Your task to perform on an android device: toggle location history Image 0: 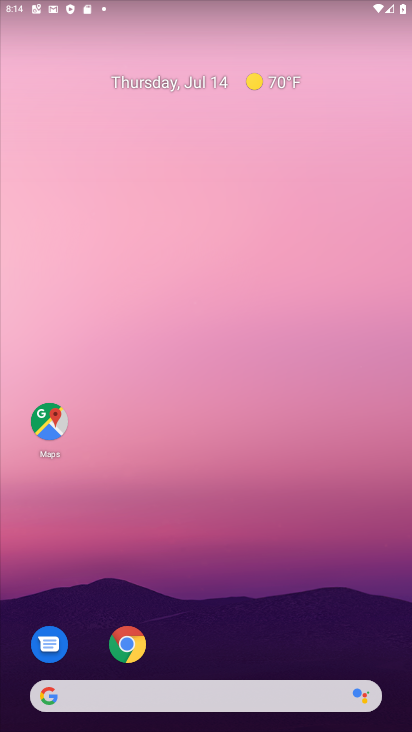
Step 0: drag from (200, 587) to (233, 158)
Your task to perform on an android device: toggle location history Image 1: 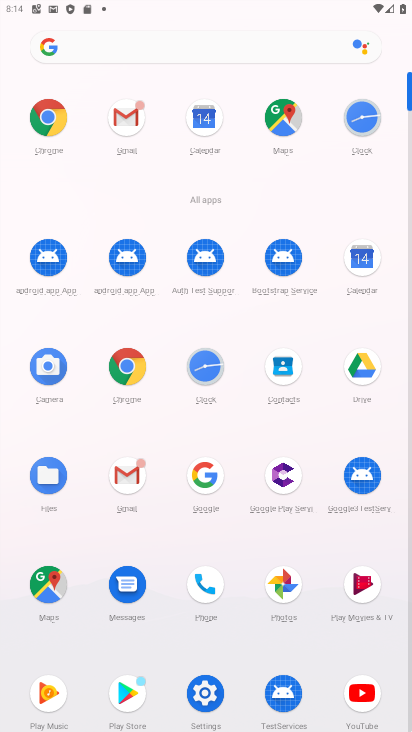
Step 1: click (202, 673)
Your task to perform on an android device: toggle location history Image 2: 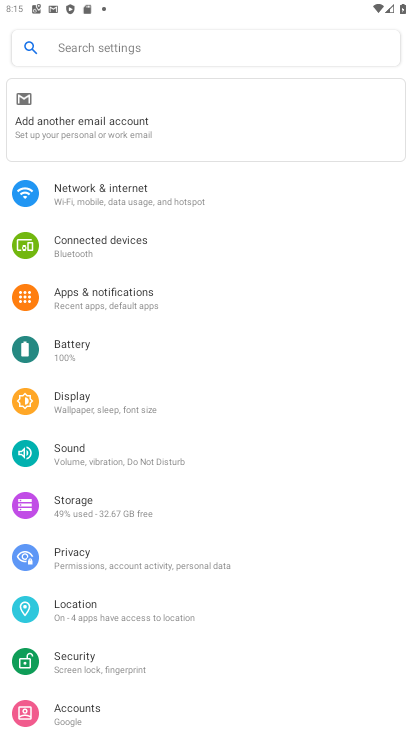
Step 2: click (108, 607)
Your task to perform on an android device: toggle location history Image 3: 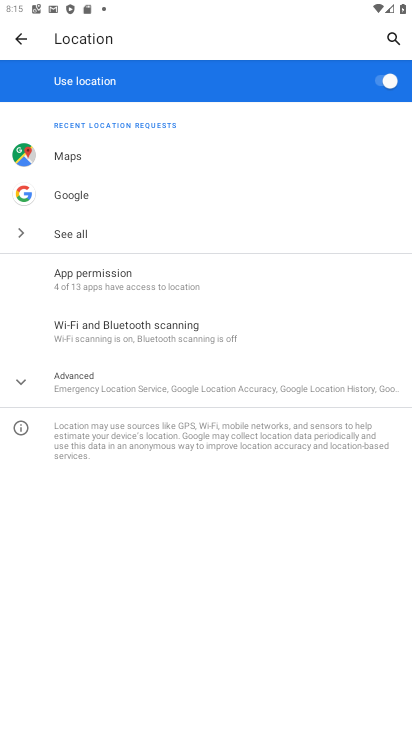
Step 3: click (116, 372)
Your task to perform on an android device: toggle location history Image 4: 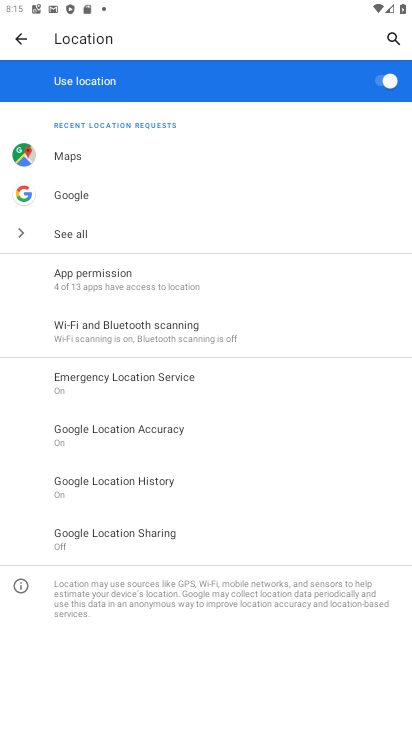
Step 4: click (151, 477)
Your task to perform on an android device: toggle location history Image 5: 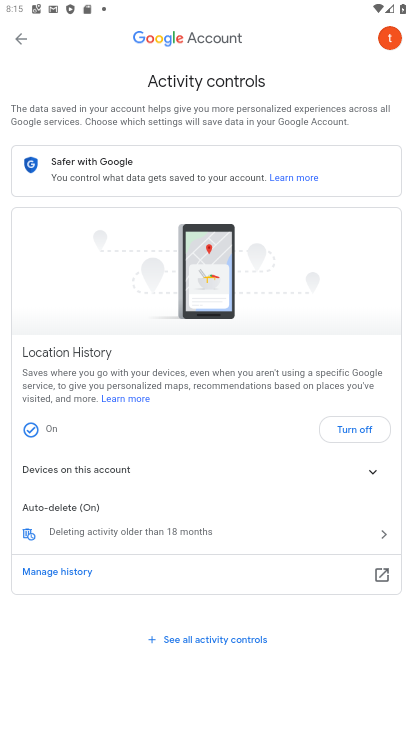
Step 5: click (337, 420)
Your task to perform on an android device: toggle location history Image 6: 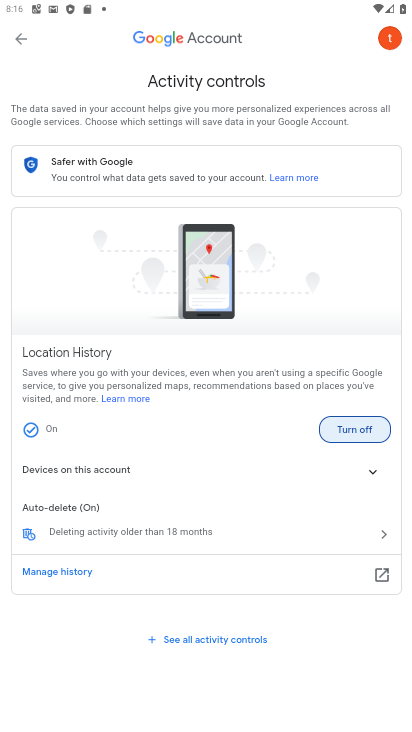
Step 6: task complete